Your task to perform on an android device: open the mobile data screen to see how much data has been used Image 0: 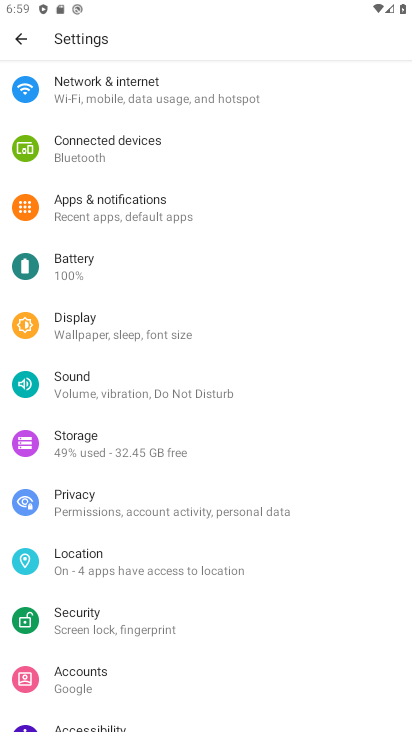
Step 0: press home button
Your task to perform on an android device: open the mobile data screen to see how much data has been used Image 1: 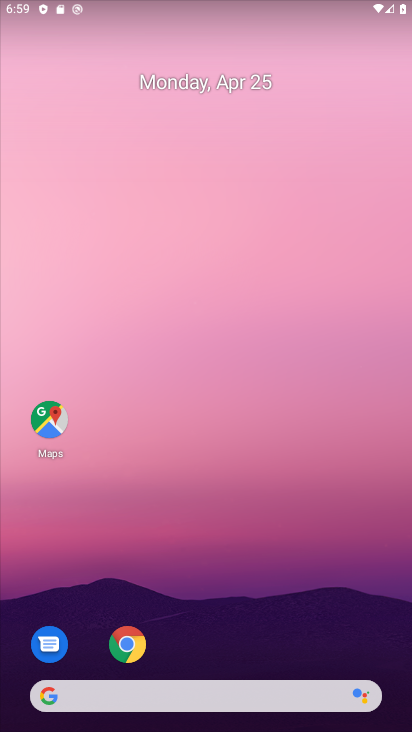
Step 1: drag from (265, 569) to (310, 90)
Your task to perform on an android device: open the mobile data screen to see how much data has been used Image 2: 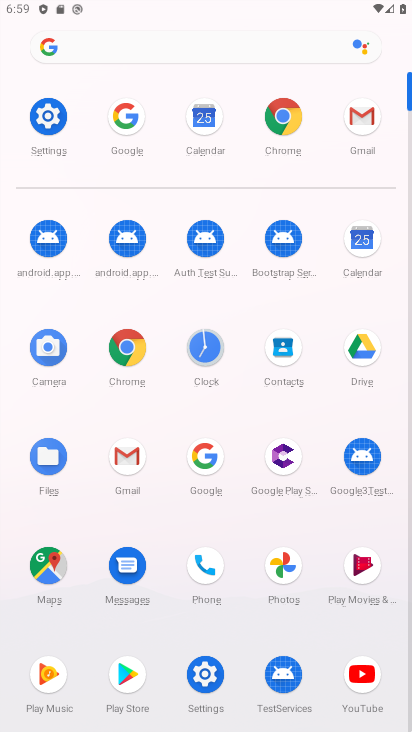
Step 2: click (59, 114)
Your task to perform on an android device: open the mobile data screen to see how much data has been used Image 3: 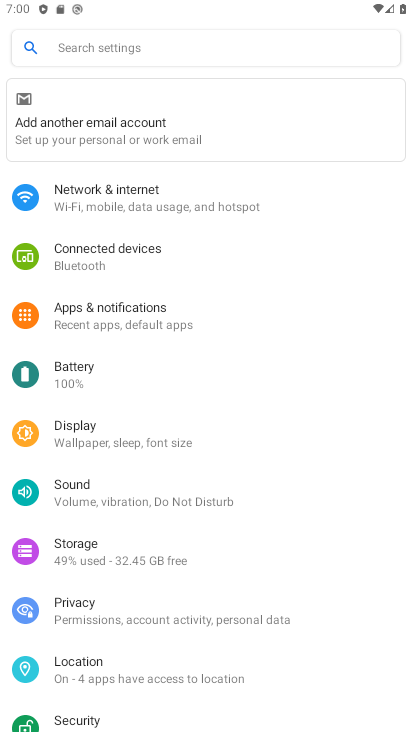
Step 3: click (128, 198)
Your task to perform on an android device: open the mobile data screen to see how much data has been used Image 4: 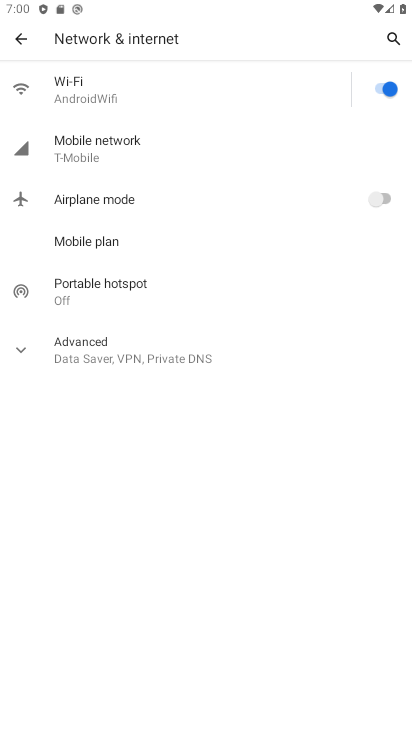
Step 4: click (90, 141)
Your task to perform on an android device: open the mobile data screen to see how much data has been used Image 5: 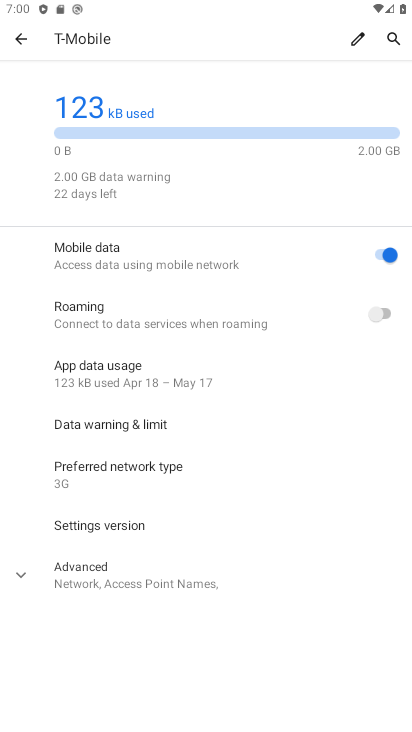
Step 5: click (138, 375)
Your task to perform on an android device: open the mobile data screen to see how much data has been used Image 6: 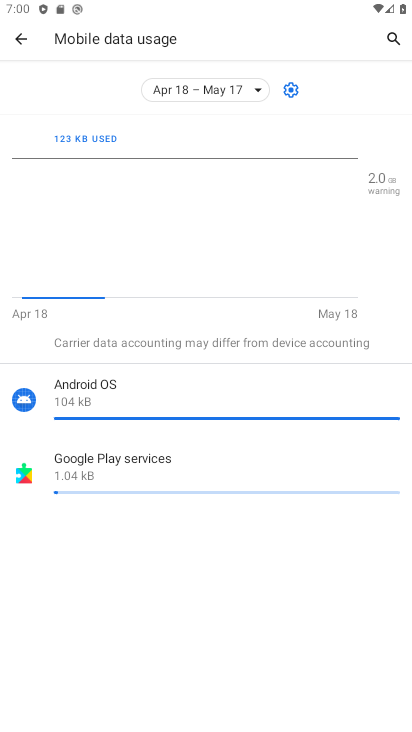
Step 6: task complete